Your task to perform on an android device: Go to location settings Image 0: 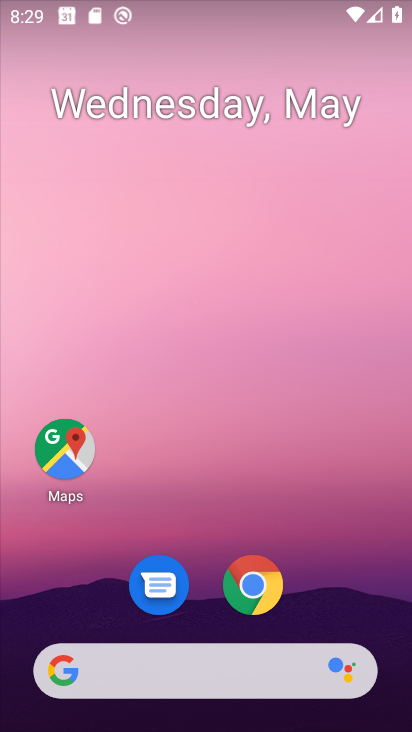
Step 0: drag from (362, 567) to (242, 93)
Your task to perform on an android device: Go to location settings Image 1: 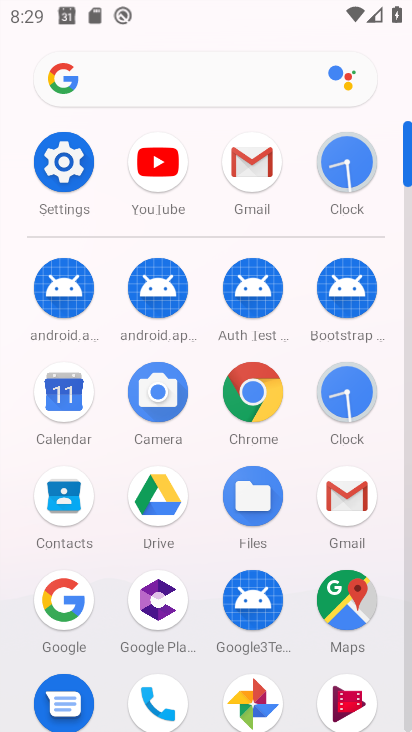
Step 1: click (85, 167)
Your task to perform on an android device: Go to location settings Image 2: 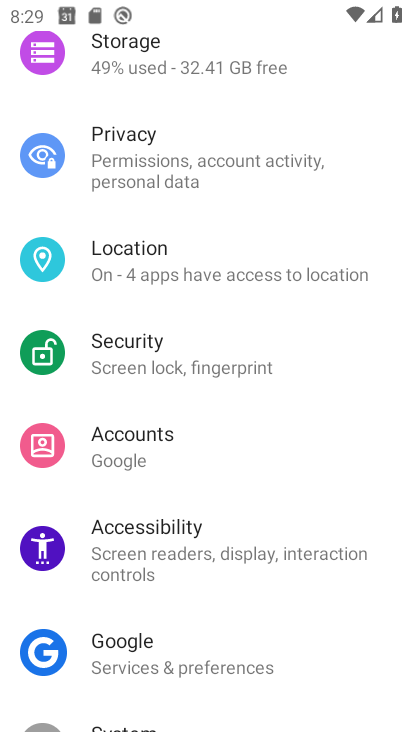
Step 2: click (195, 251)
Your task to perform on an android device: Go to location settings Image 3: 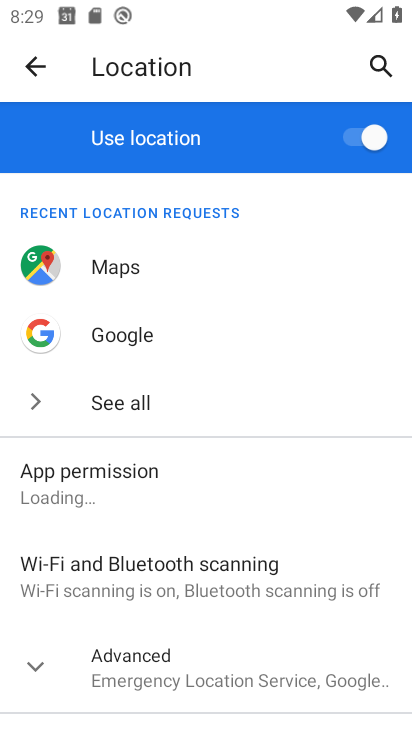
Step 3: task complete